Your task to perform on an android device: Search for sushi restaurants on Maps Image 0: 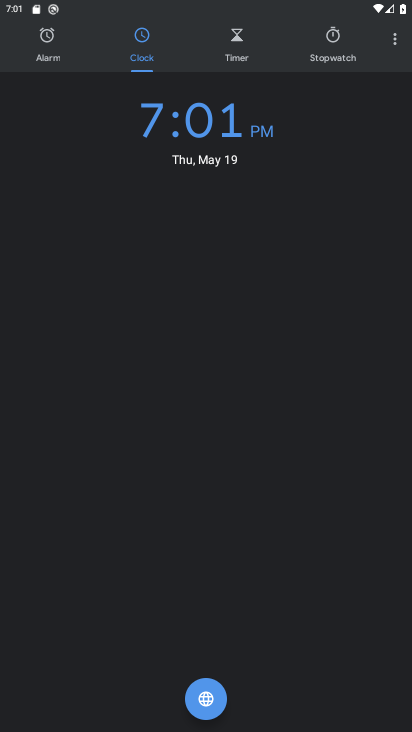
Step 0: press home button
Your task to perform on an android device: Search for sushi restaurants on Maps Image 1: 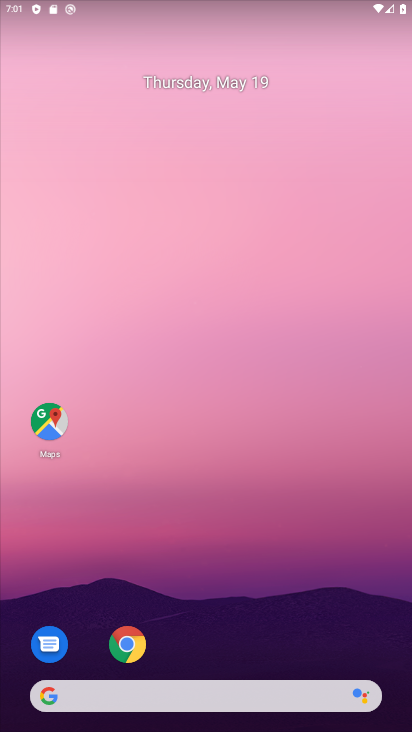
Step 1: click (44, 425)
Your task to perform on an android device: Search for sushi restaurants on Maps Image 2: 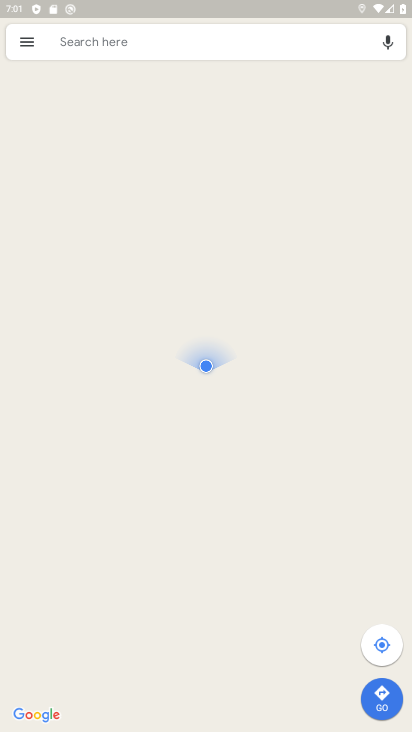
Step 2: click (160, 43)
Your task to perform on an android device: Search for sushi restaurants on Maps Image 3: 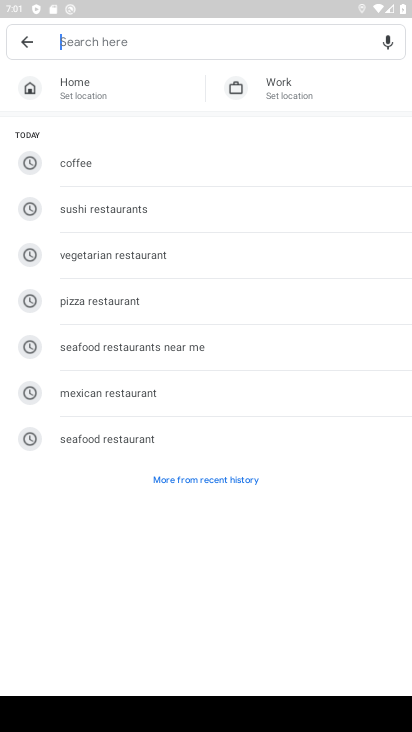
Step 3: click (178, 203)
Your task to perform on an android device: Search for sushi restaurants on Maps Image 4: 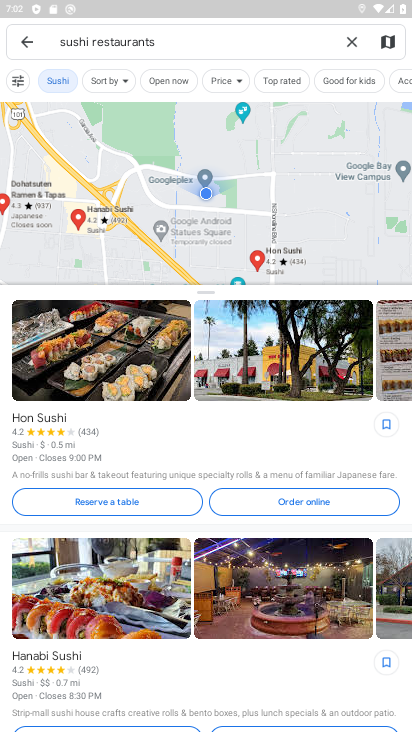
Step 4: task complete